Your task to perform on an android device: Empty the shopping cart on amazon.com. Add logitech g910 to the cart on amazon.com, then select checkout. Image 0: 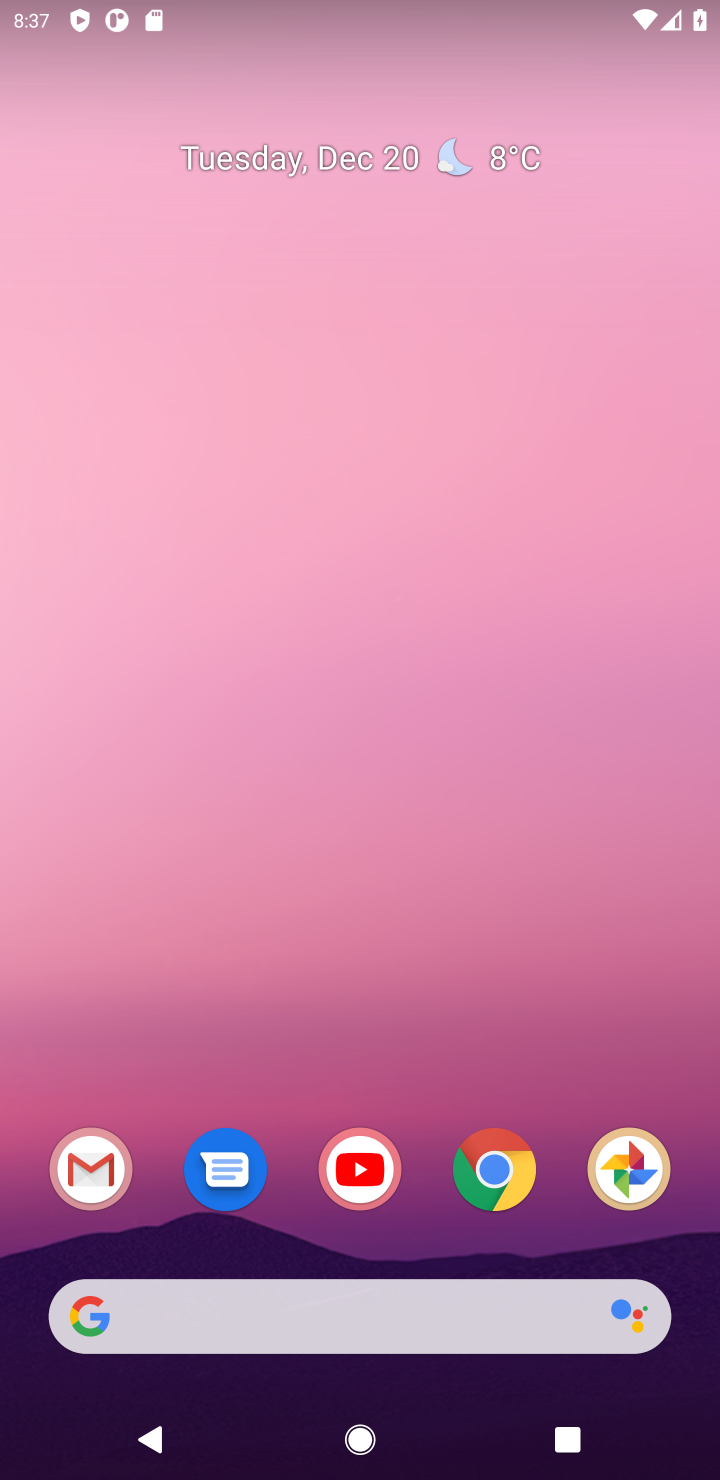
Step 0: click (494, 1160)
Your task to perform on an android device: Empty the shopping cart on amazon.com. Add logitech g910 to the cart on amazon.com, then select checkout. Image 1: 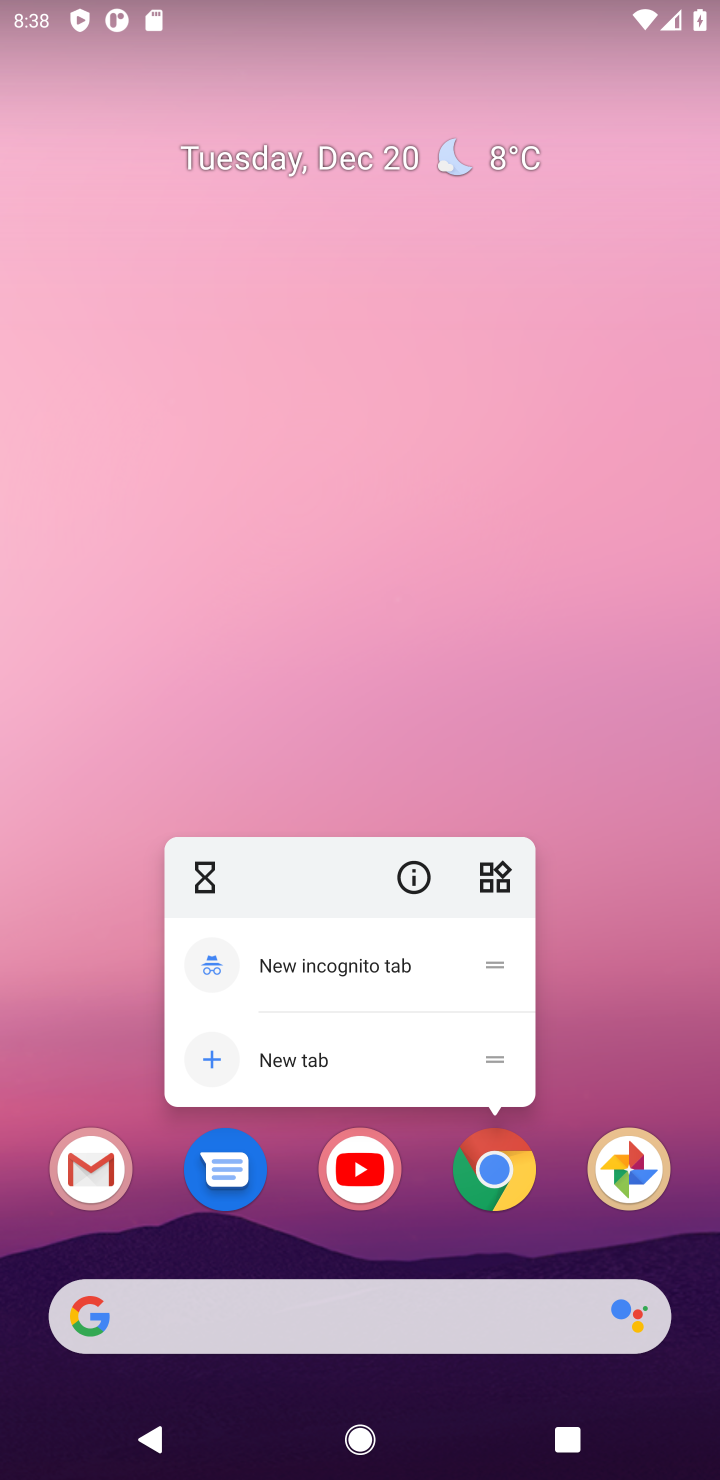
Step 1: click (515, 1201)
Your task to perform on an android device: Empty the shopping cart on amazon.com. Add logitech g910 to the cart on amazon.com, then select checkout. Image 2: 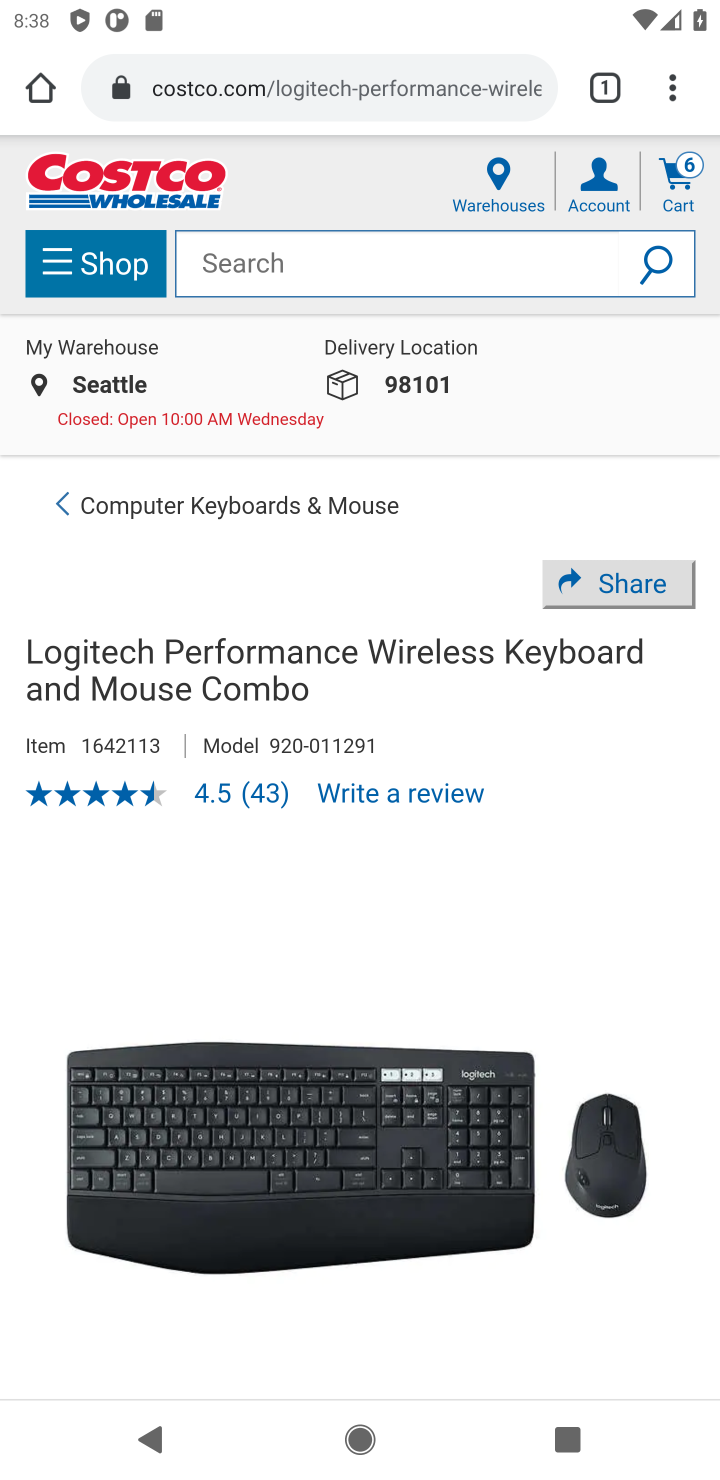
Step 2: click (190, 100)
Your task to perform on an android device: Empty the shopping cart on amazon.com. Add logitech g910 to the cart on amazon.com, then select checkout. Image 3: 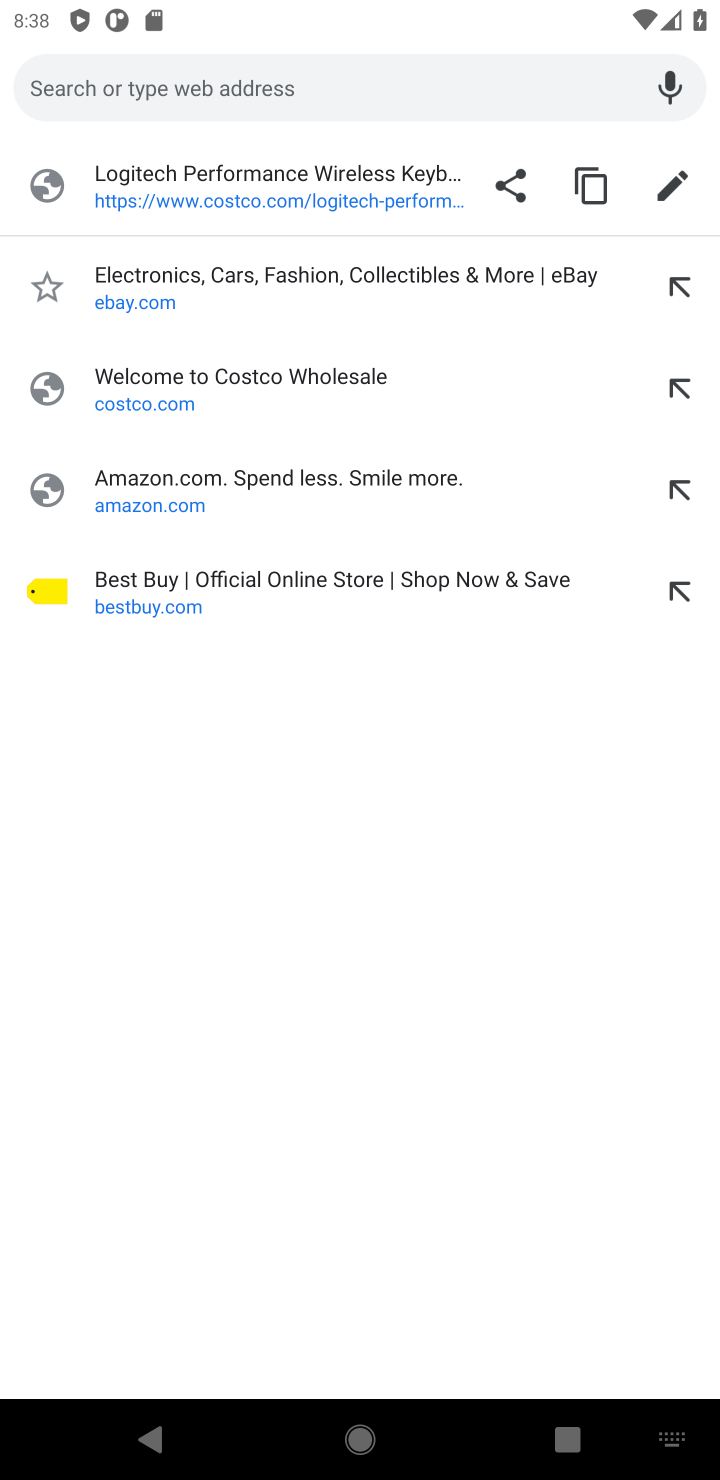
Step 3: click (374, 494)
Your task to perform on an android device: Empty the shopping cart on amazon.com. Add logitech g910 to the cart on amazon.com, then select checkout. Image 4: 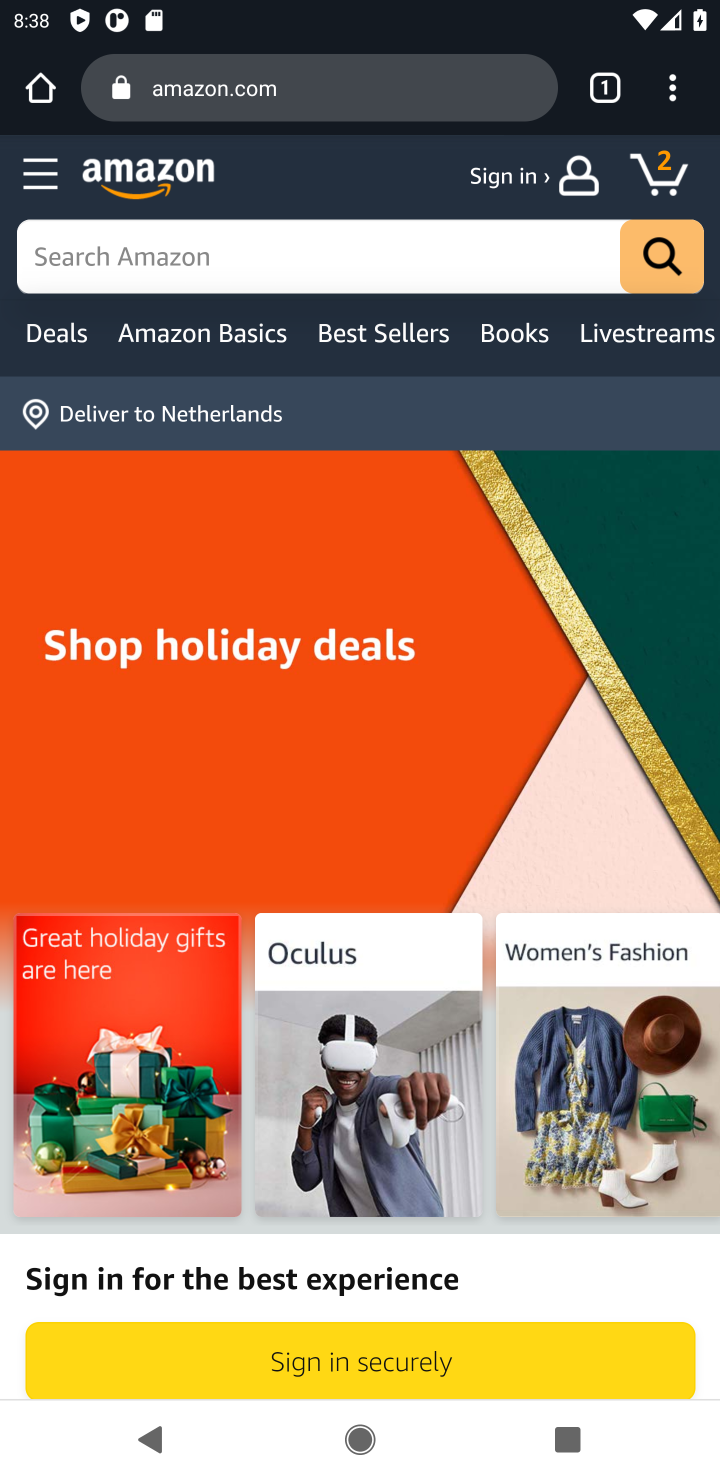
Step 4: click (216, 257)
Your task to perform on an android device: Empty the shopping cart on amazon.com. Add logitech g910 to the cart on amazon.com, then select checkout. Image 5: 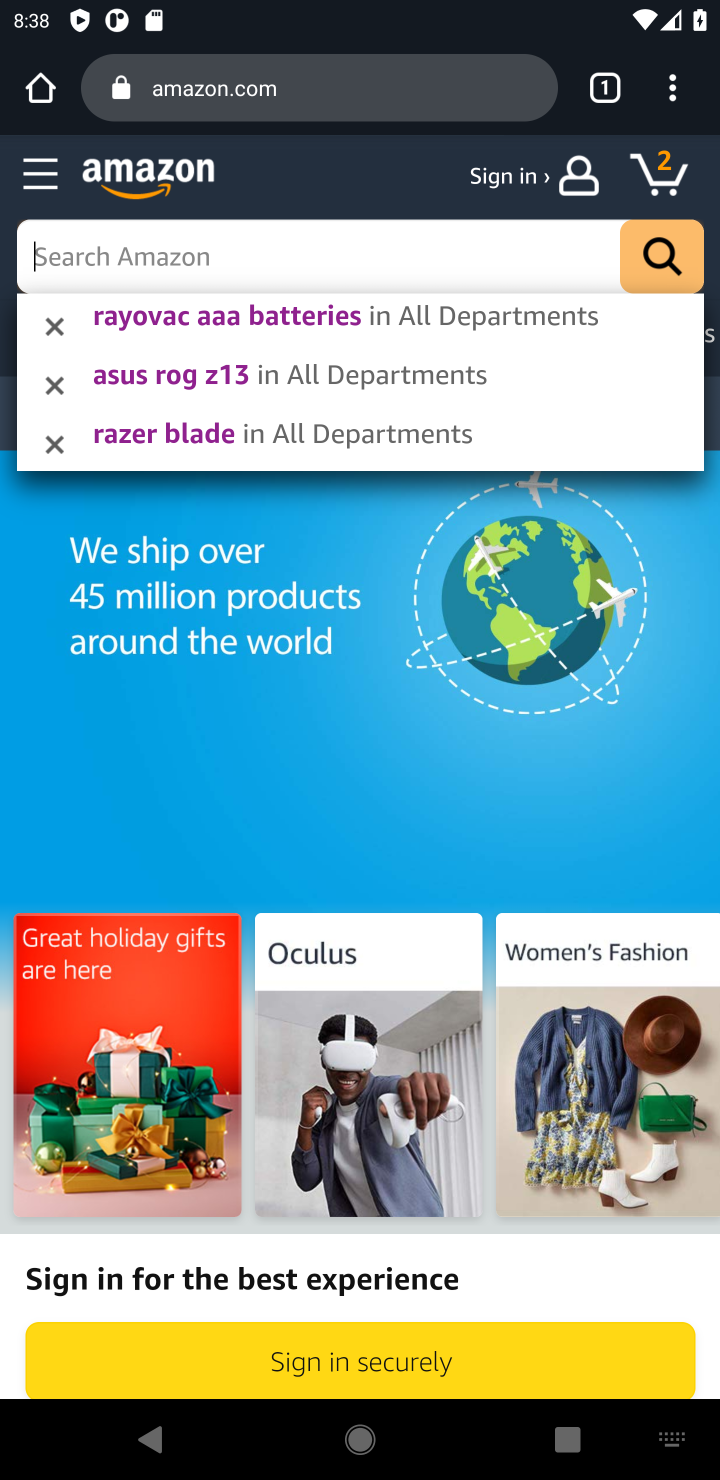
Step 5: type "logitech g910"
Your task to perform on an android device: Empty the shopping cart on amazon.com. Add logitech g910 to the cart on amazon.com, then select checkout. Image 6: 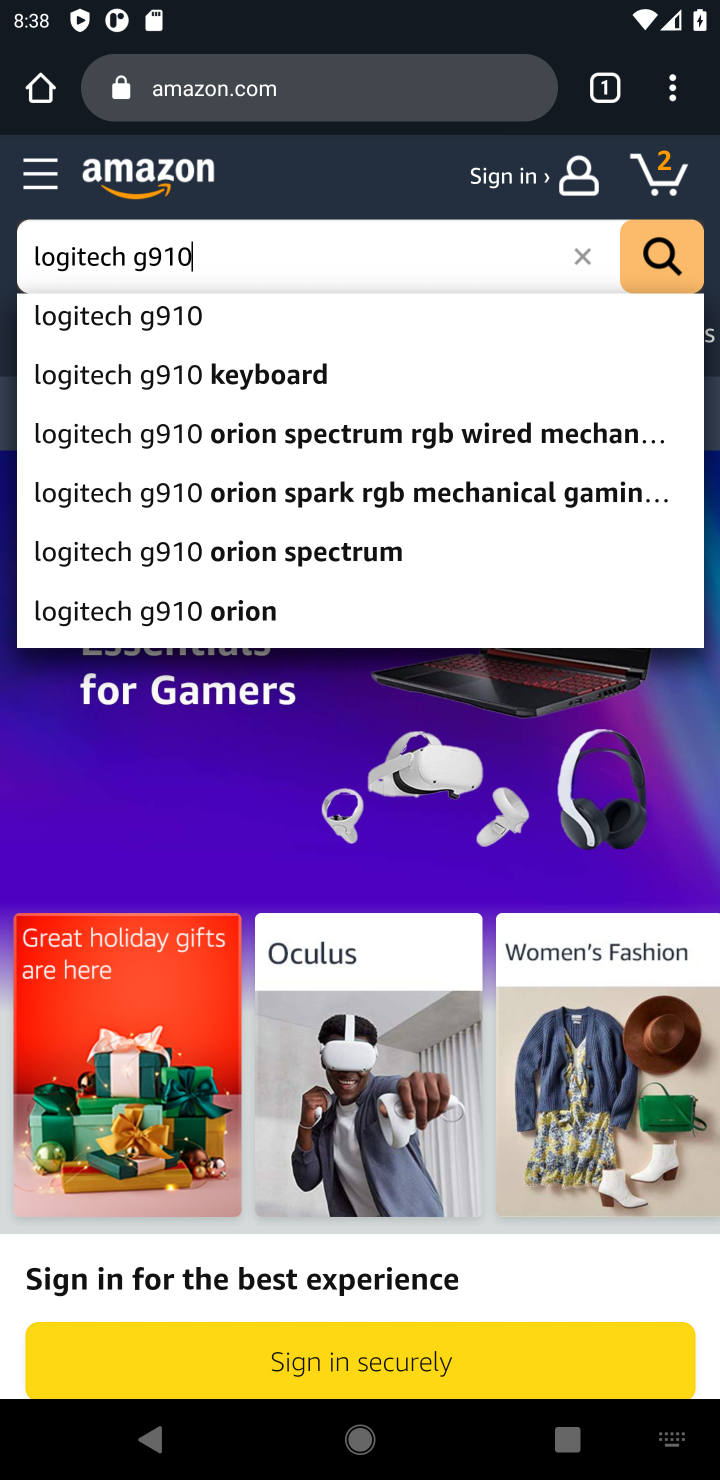
Step 6: click (662, 254)
Your task to perform on an android device: Empty the shopping cart on amazon.com. Add logitech g910 to the cart on amazon.com, then select checkout. Image 7: 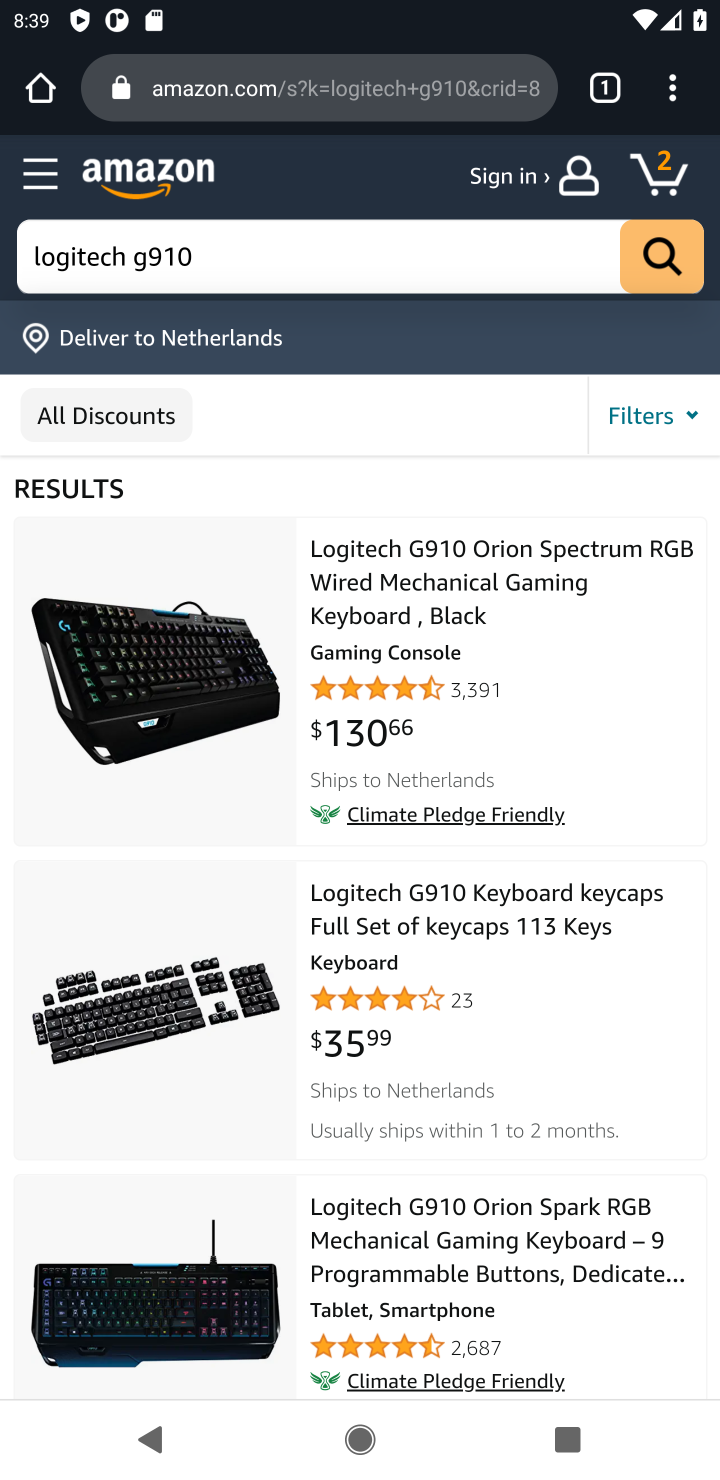
Step 7: click (386, 580)
Your task to perform on an android device: Empty the shopping cart on amazon.com. Add logitech g910 to the cart on amazon.com, then select checkout. Image 8: 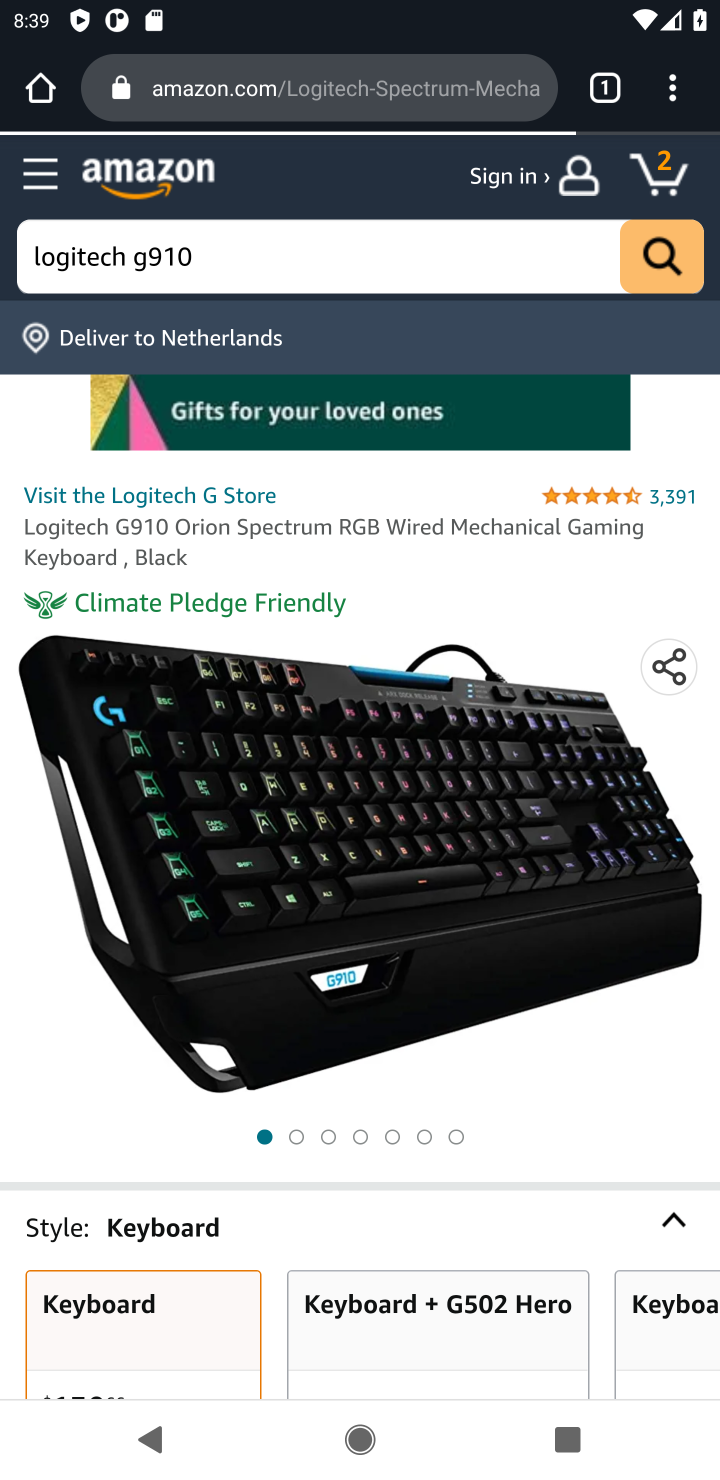
Step 8: drag from (429, 948) to (354, 250)
Your task to perform on an android device: Empty the shopping cart on amazon.com. Add logitech g910 to the cart on amazon.com, then select checkout. Image 9: 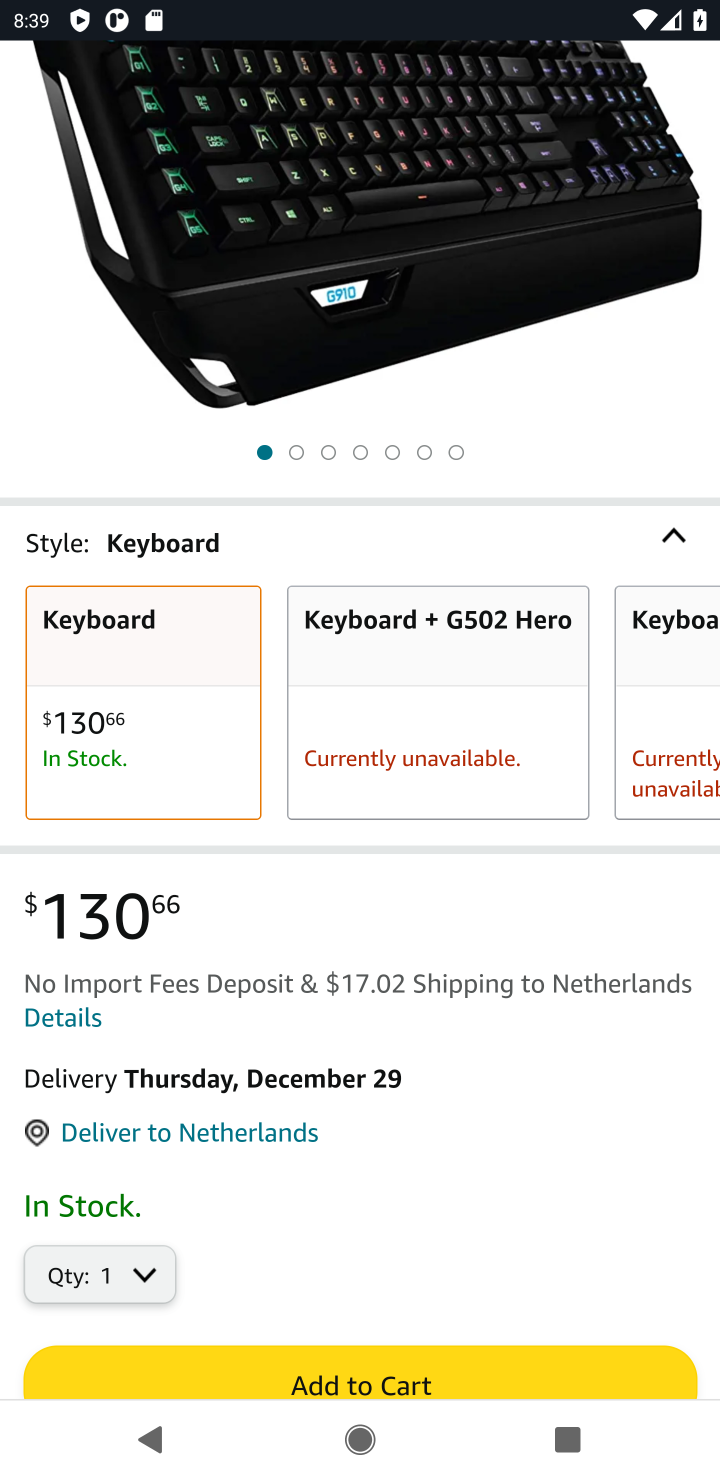
Step 9: click (345, 1378)
Your task to perform on an android device: Empty the shopping cart on amazon.com. Add logitech g910 to the cart on amazon.com, then select checkout. Image 10: 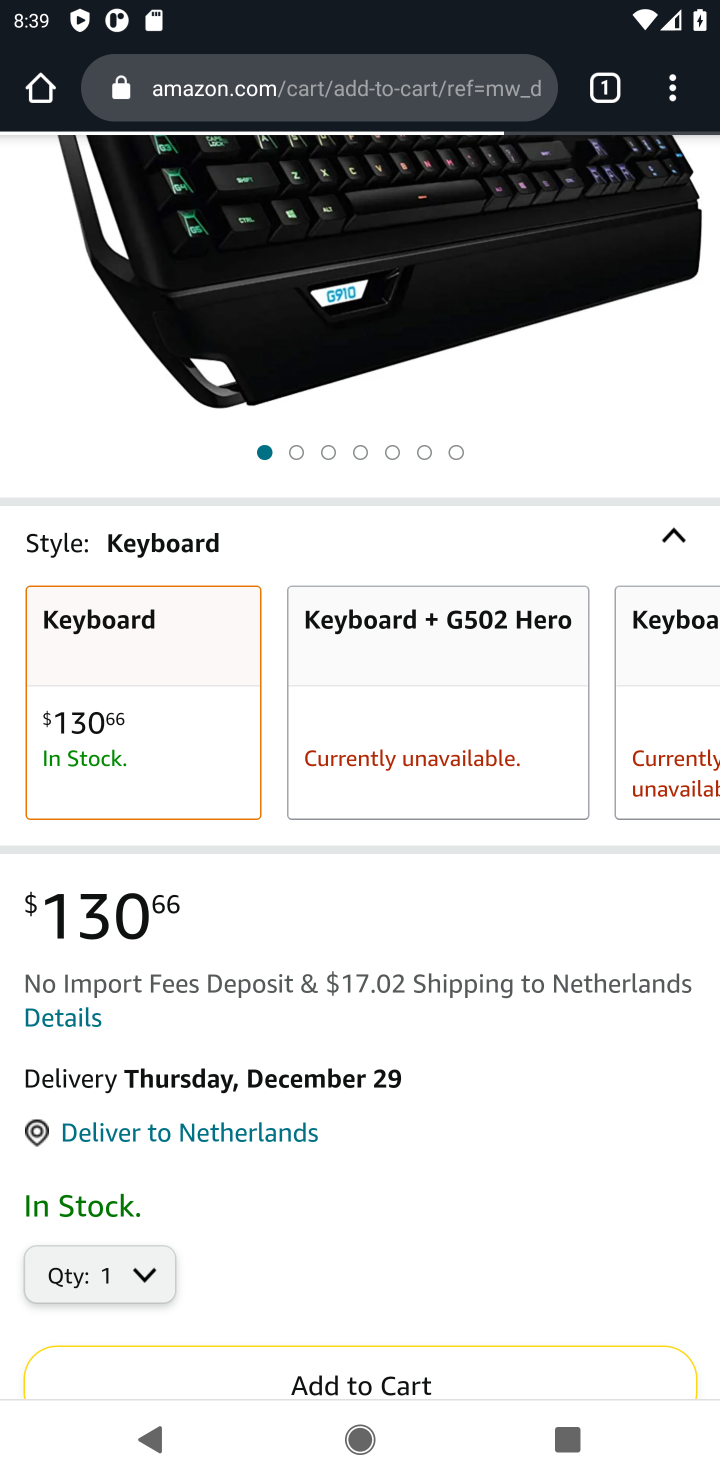
Step 10: task complete